Your task to perform on an android device: Clear the cart on target. Search for asus zenbook on target, select the first entry, add it to the cart, then select checkout. Image 0: 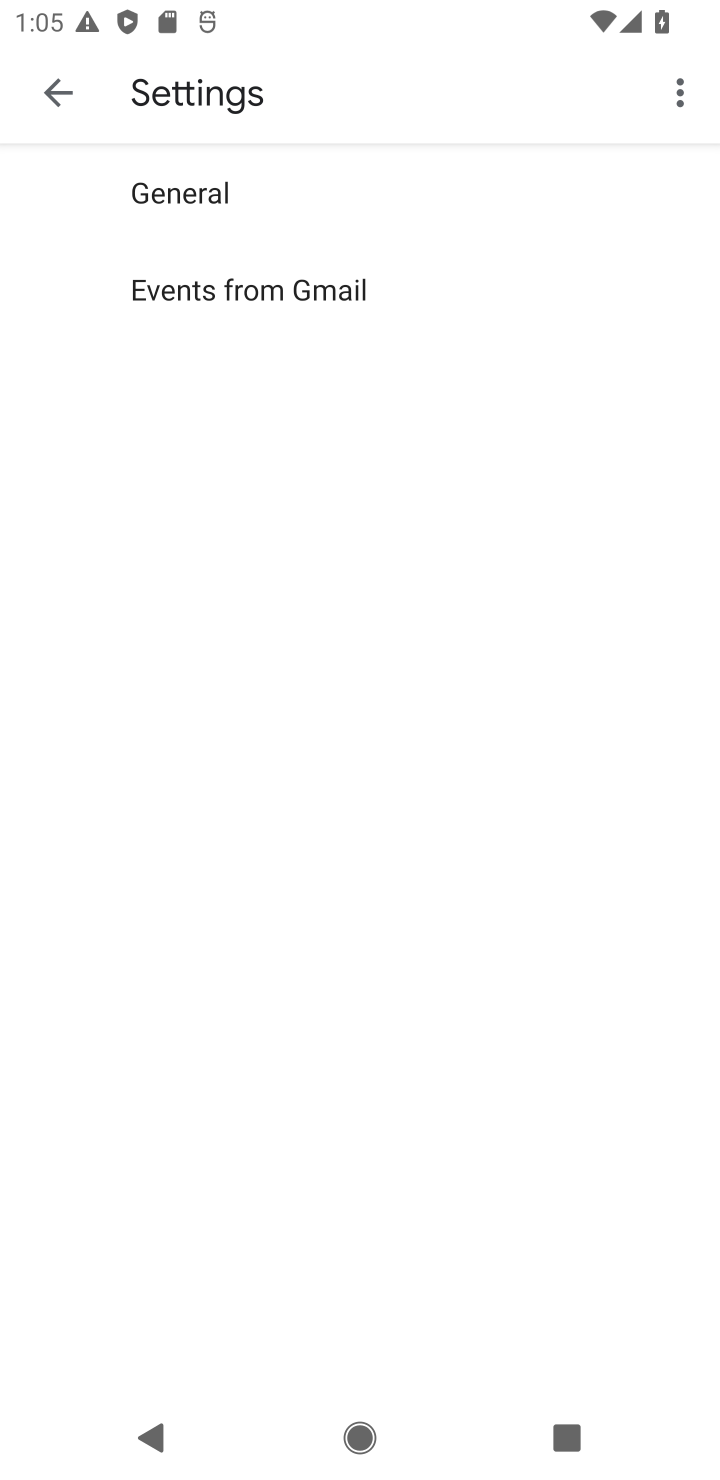
Step 0: press home button
Your task to perform on an android device: Clear the cart on target. Search for asus zenbook on target, select the first entry, add it to the cart, then select checkout. Image 1: 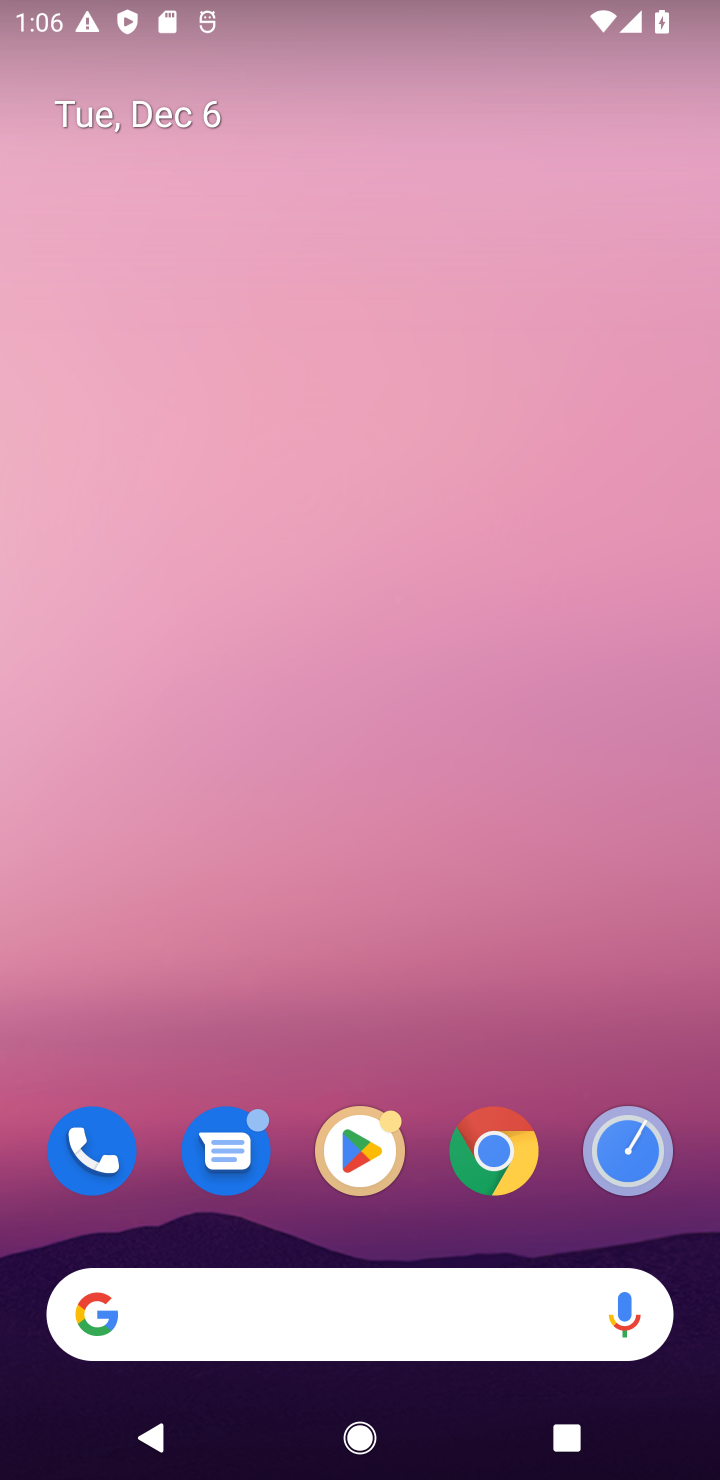
Step 1: click (482, 1154)
Your task to perform on an android device: Clear the cart on target. Search for asus zenbook on target, select the first entry, add it to the cart, then select checkout. Image 2: 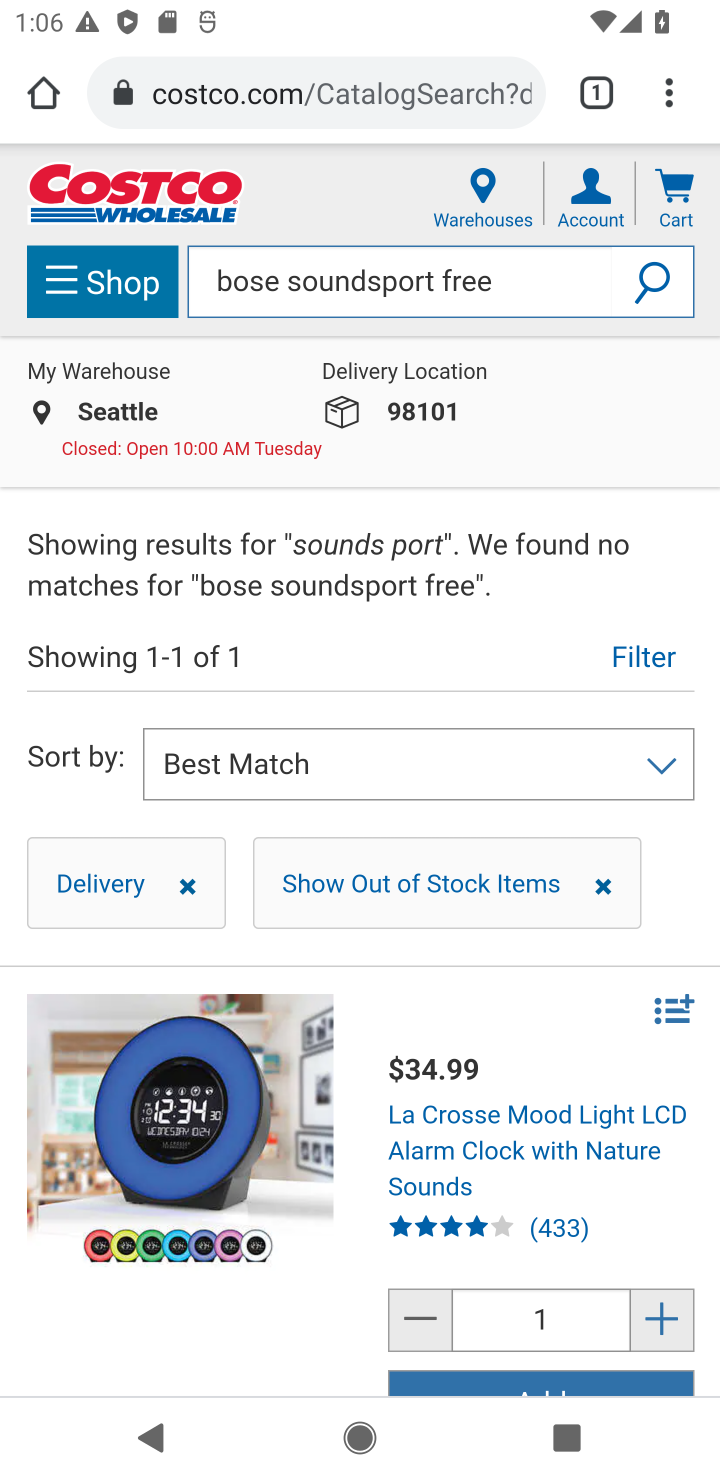
Step 2: click (297, 101)
Your task to perform on an android device: Clear the cart on target. Search for asus zenbook on target, select the first entry, add it to the cart, then select checkout. Image 3: 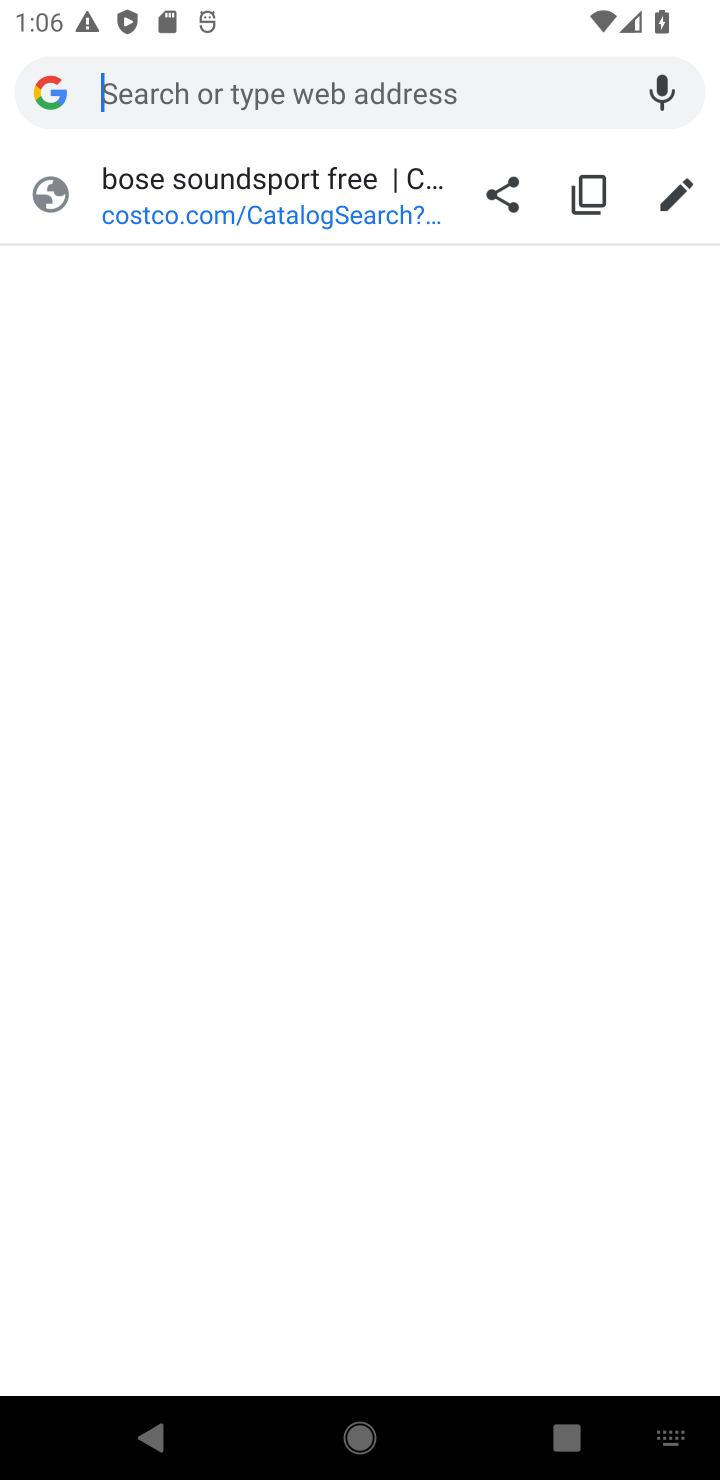
Step 3: type "target.com"
Your task to perform on an android device: Clear the cart on target. Search for asus zenbook on target, select the first entry, add it to the cart, then select checkout. Image 4: 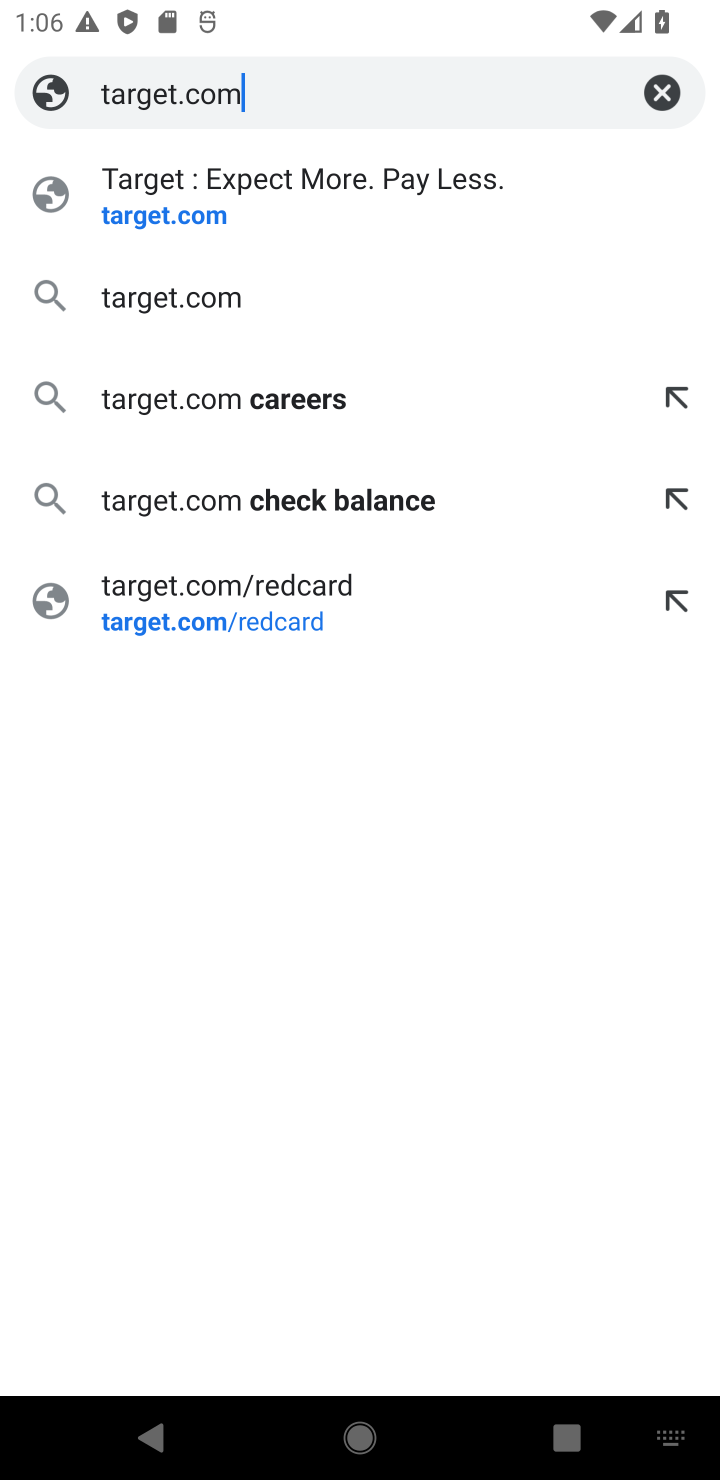
Step 4: click (159, 190)
Your task to perform on an android device: Clear the cart on target. Search for asus zenbook on target, select the first entry, add it to the cart, then select checkout. Image 5: 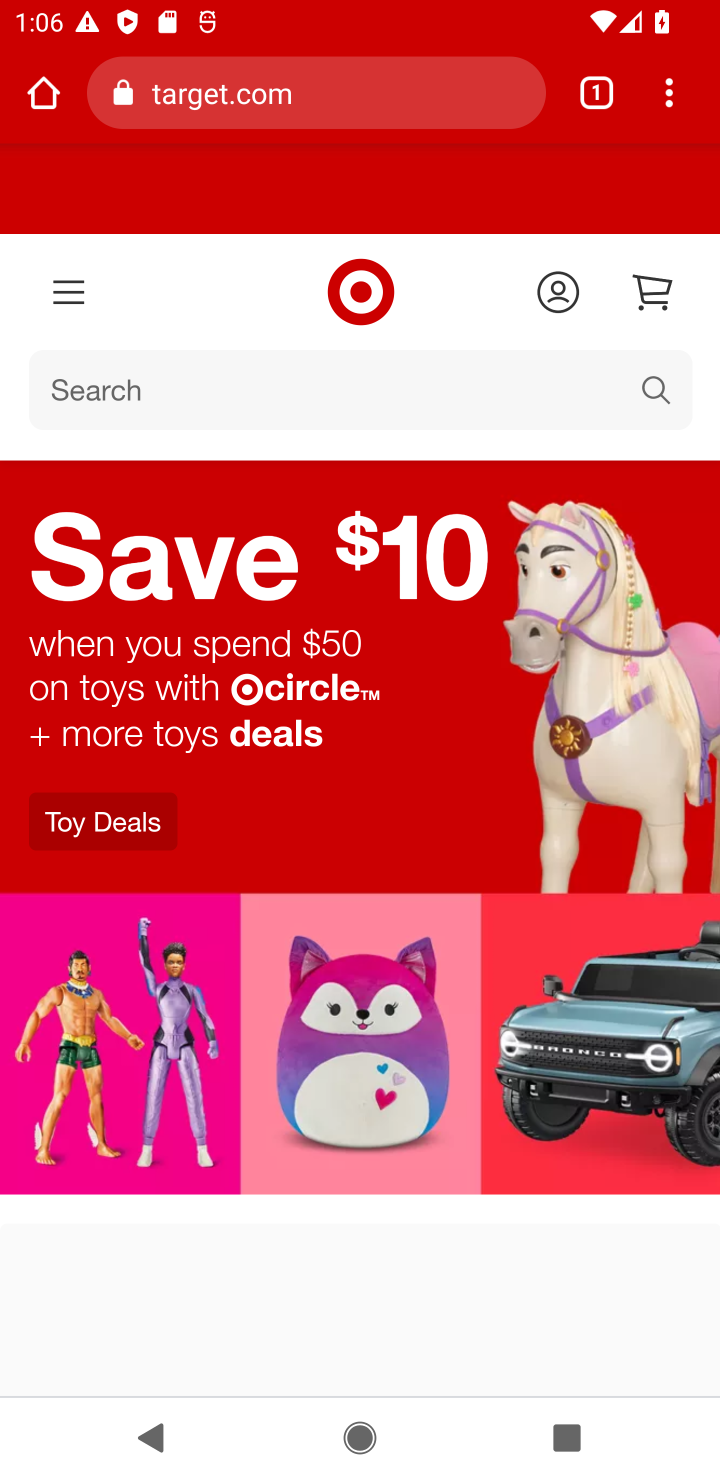
Step 5: click (653, 283)
Your task to perform on an android device: Clear the cart on target. Search for asus zenbook on target, select the first entry, add it to the cart, then select checkout. Image 6: 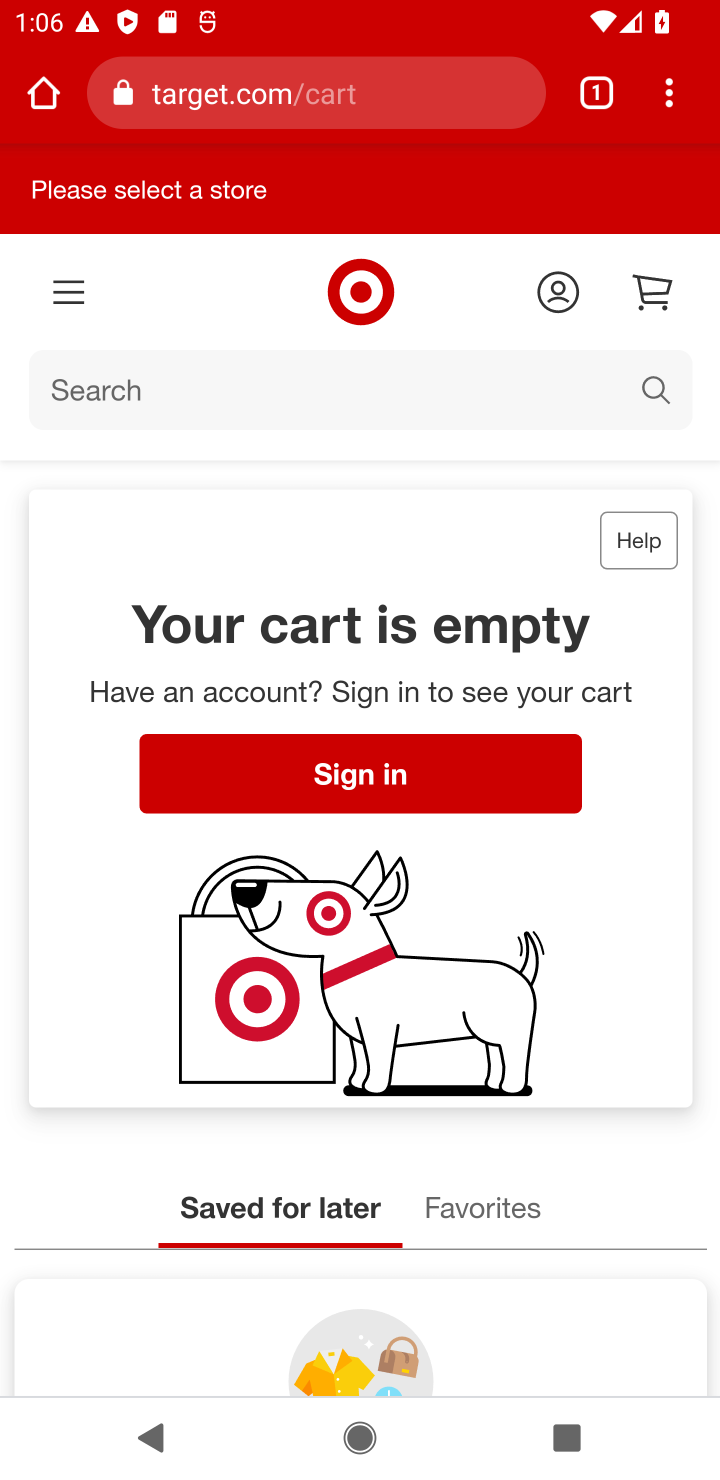
Step 6: click (104, 396)
Your task to perform on an android device: Clear the cart on target. Search for asus zenbook on target, select the first entry, add it to the cart, then select checkout. Image 7: 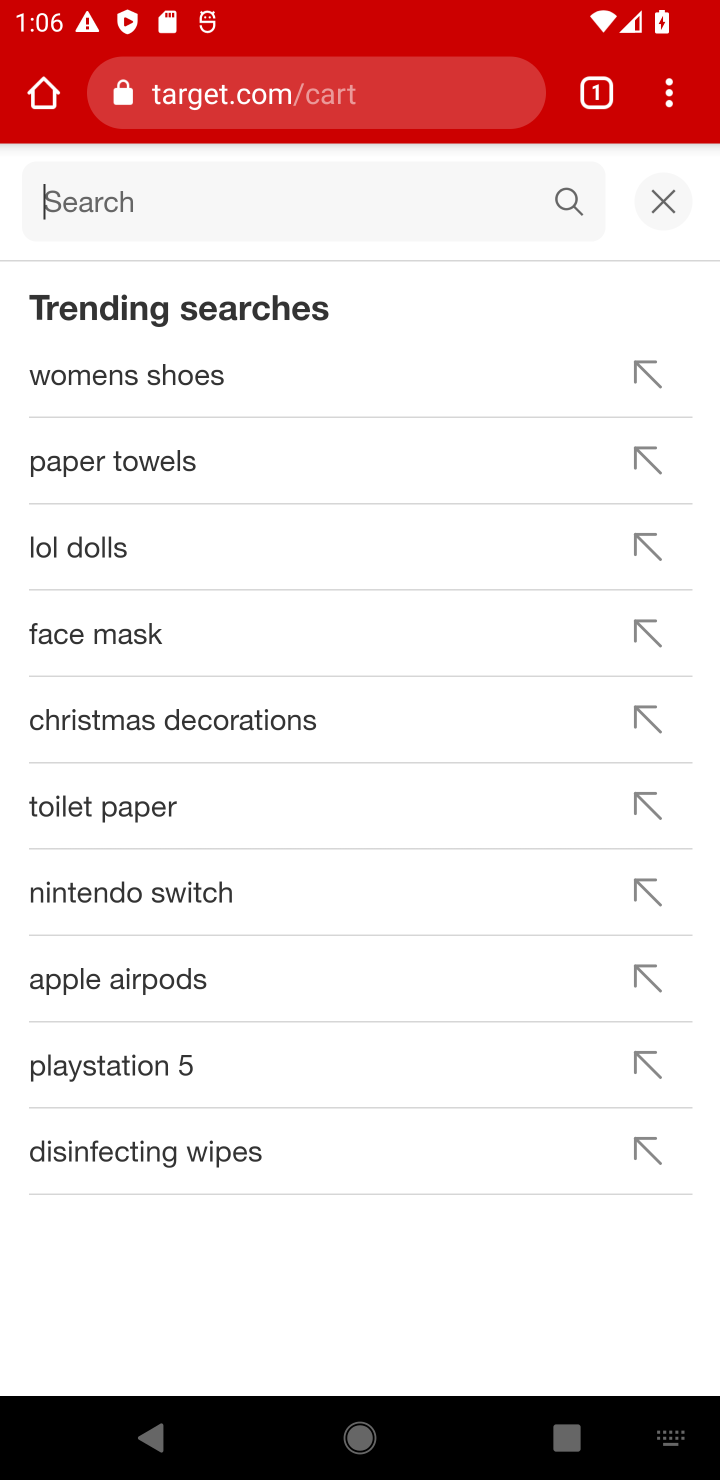
Step 7: type "asus zenbook"
Your task to perform on an android device: Clear the cart on target. Search for asus zenbook on target, select the first entry, add it to the cart, then select checkout. Image 8: 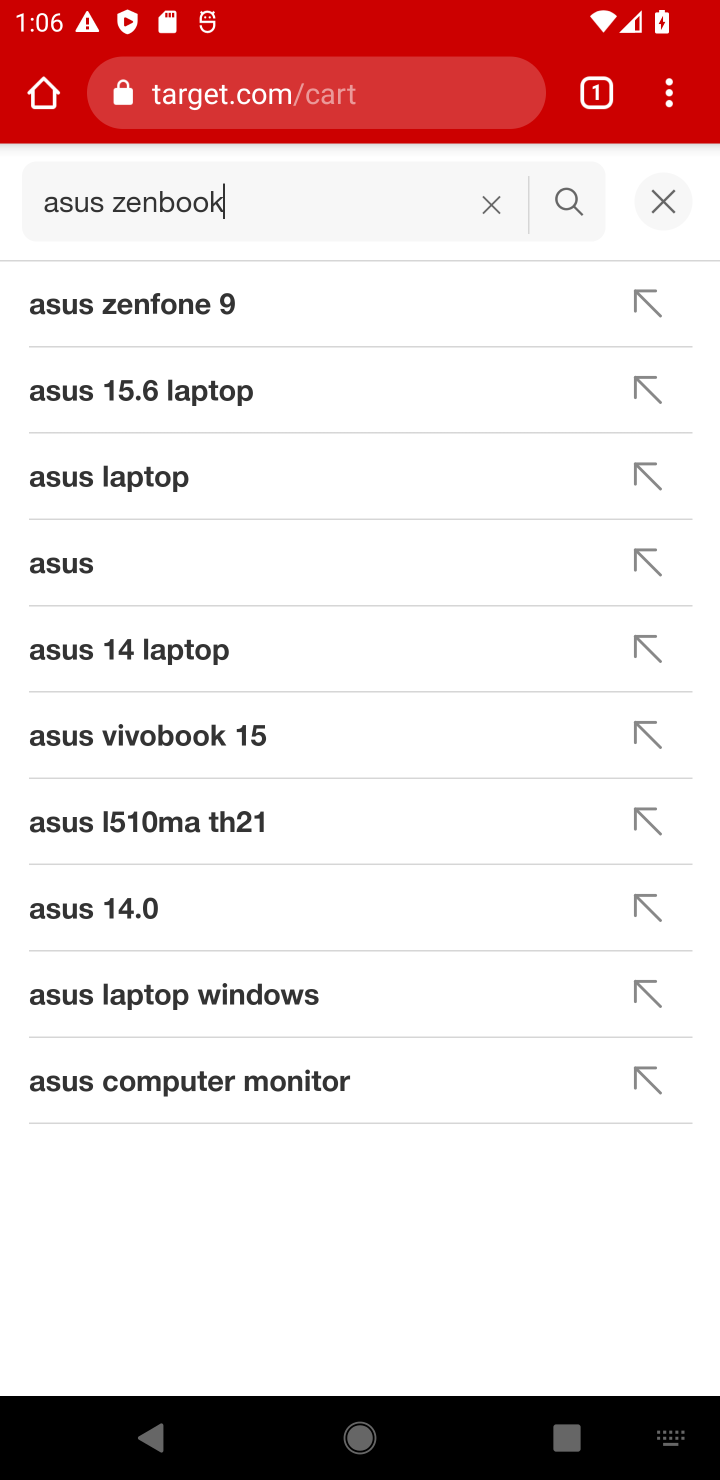
Step 8: click (562, 201)
Your task to perform on an android device: Clear the cart on target. Search for asus zenbook on target, select the first entry, add it to the cart, then select checkout. Image 9: 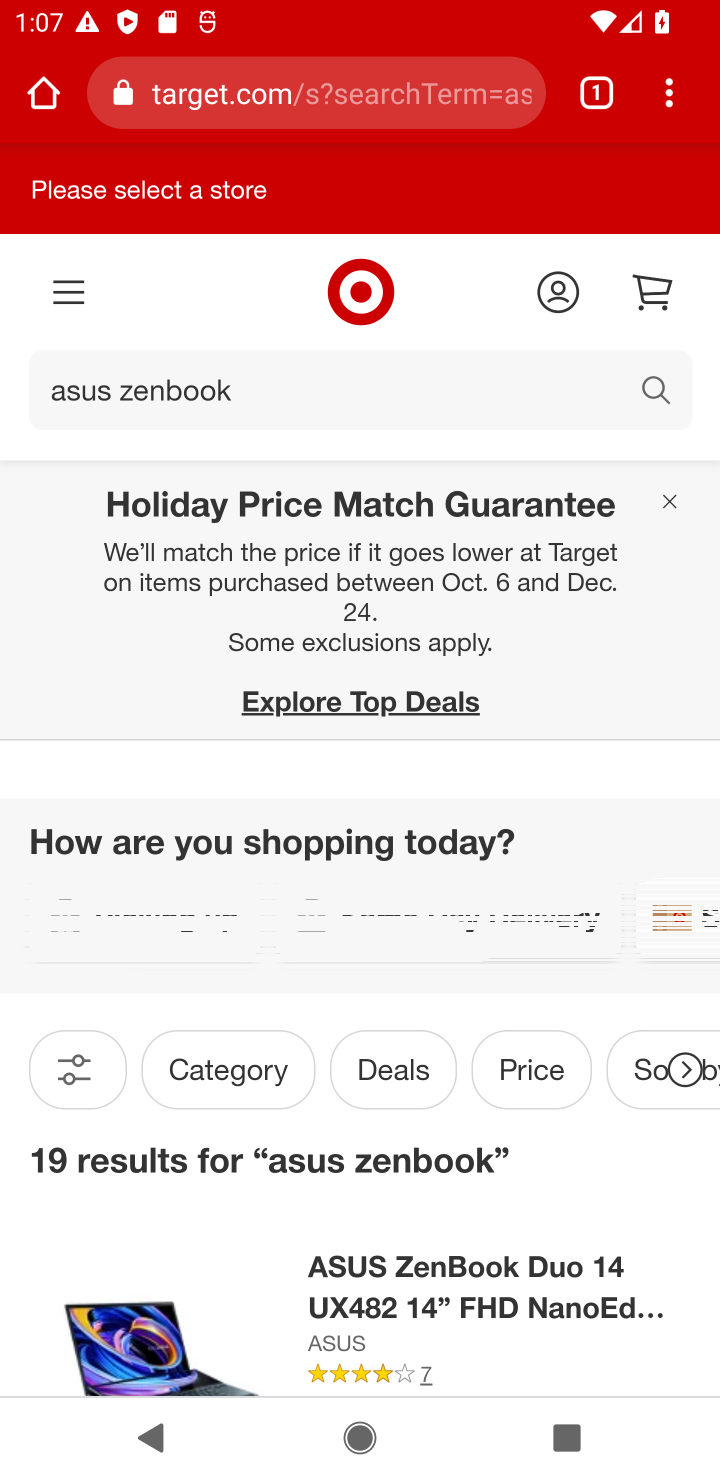
Step 9: drag from (417, 674) to (417, 426)
Your task to perform on an android device: Clear the cart on target. Search for asus zenbook on target, select the first entry, add it to the cart, then select checkout. Image 10: 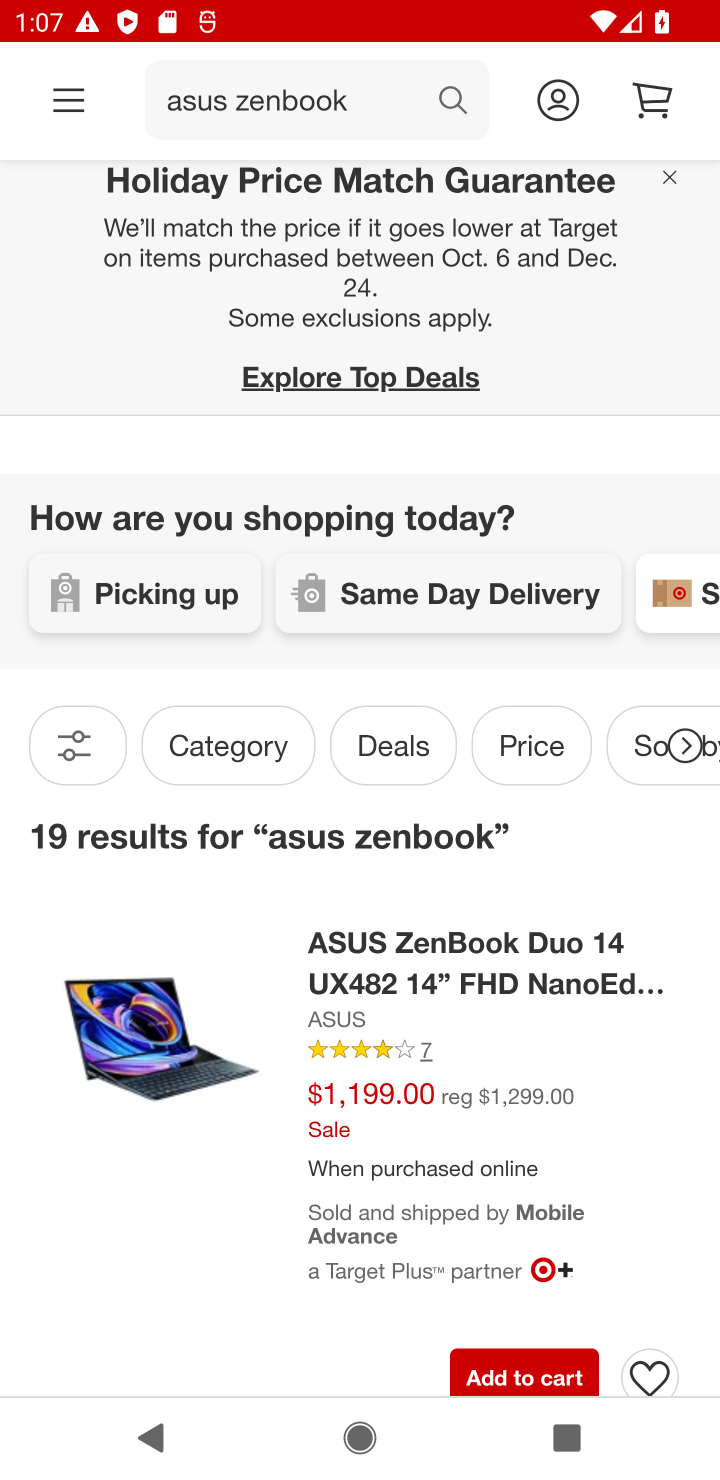
Step 10: click (489, 1376)
Your task to perform on an android device: Clear the cart on target. Search for asus zenbook on target, select the first entry, add it to the cart, then select checkout. Image 11: 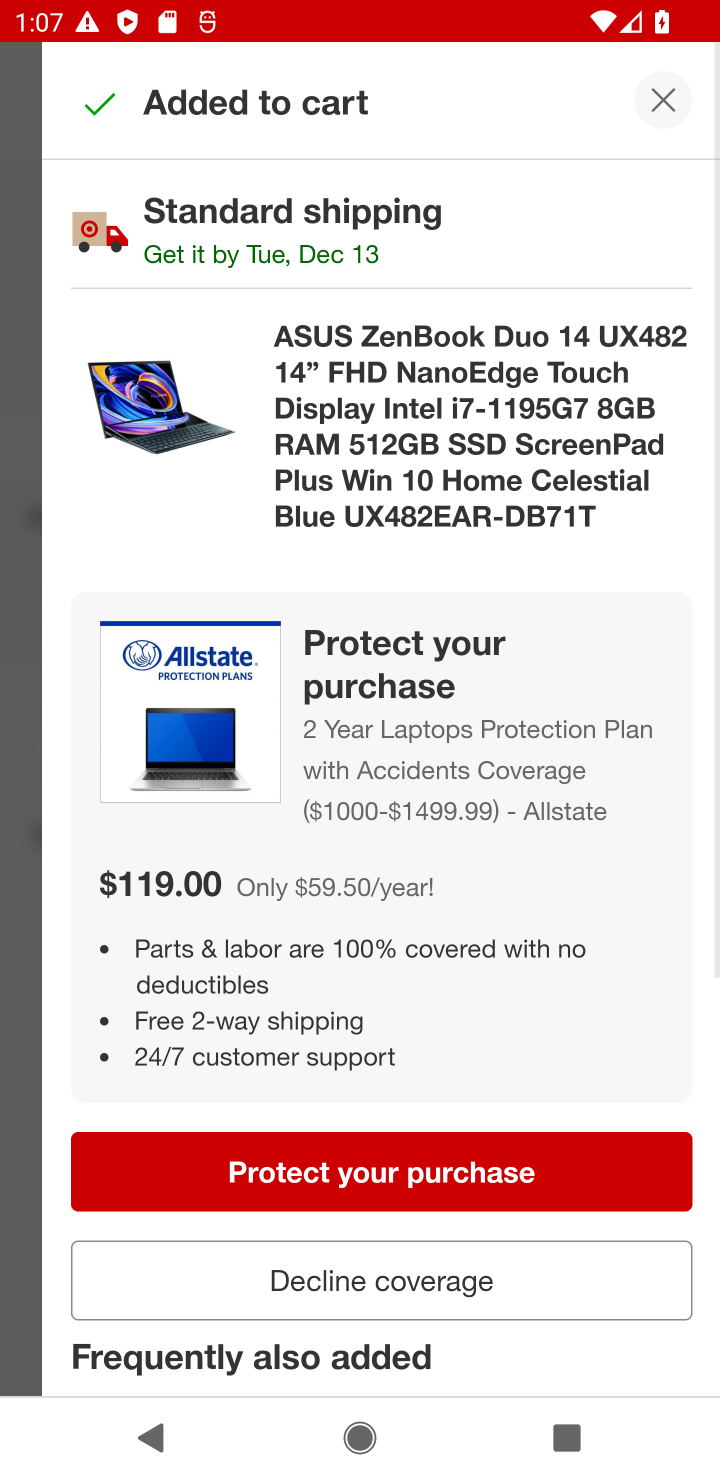
Step 11: click (659, 105)
Your task to perform on an android device: Clear the cart on target. Search for asus zenbook on target, select the first entry, add it to the cart, then select checkout. Image 12: 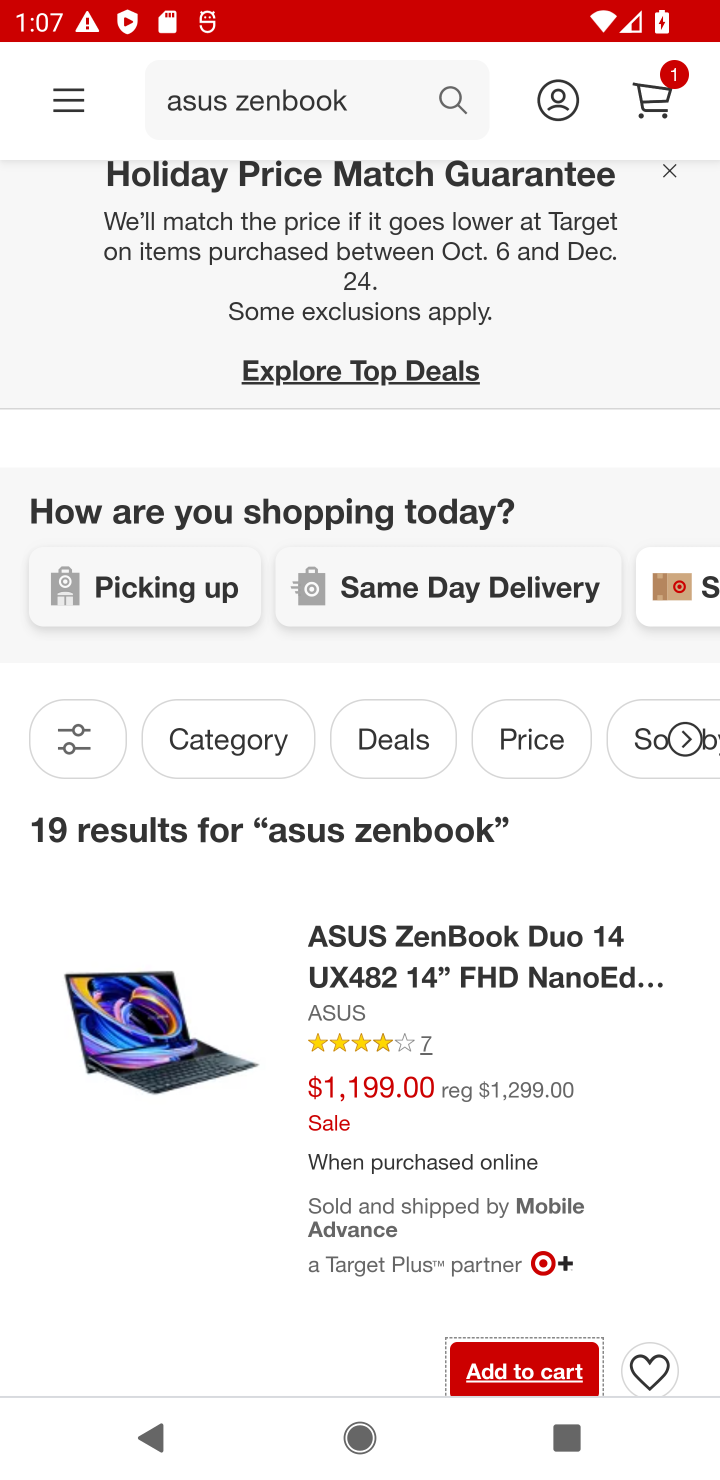
Step 12: click (657, 92)
Your task to perform on an android device: Clear the cart on target. Search for asus zenbook on target, select the first entry, add it to the cart, then select checkout. Image 13: 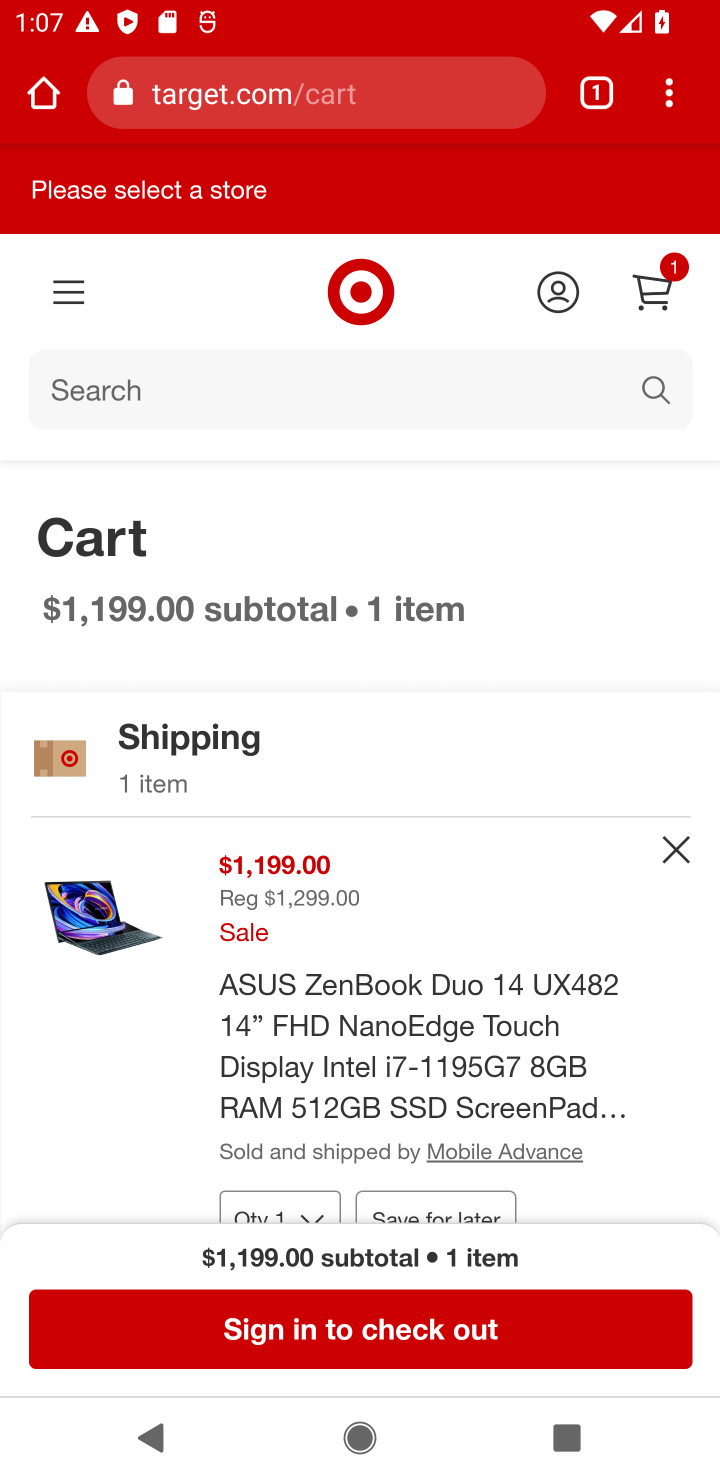
Step 13: click (342, 1326)
Your task to perform on an android device: Clear the cart on target. Search for asus zenbook on target, select the first entry, add it to the cart, then select checkout. Image 14: 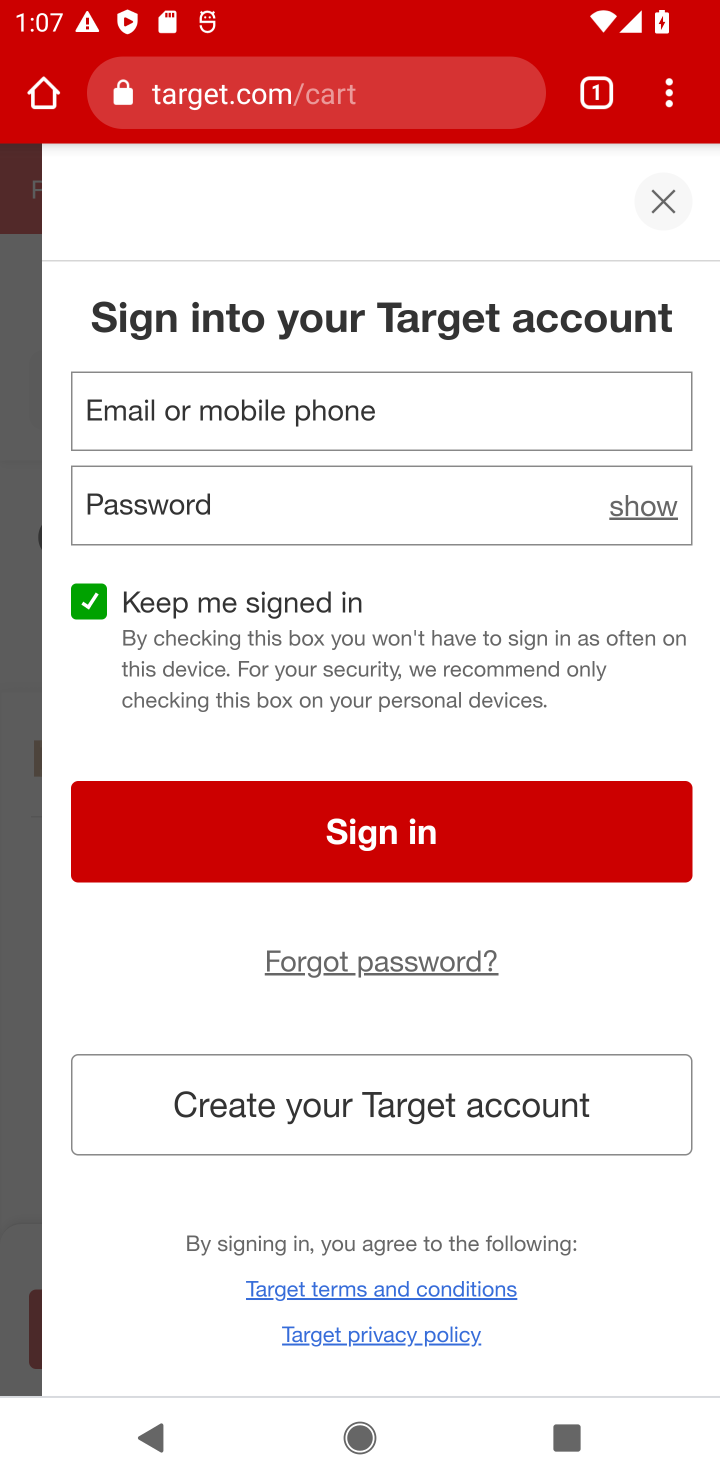
Step 14: task complete